Your task to perform on an android device: turn on sleep mode Image 0: 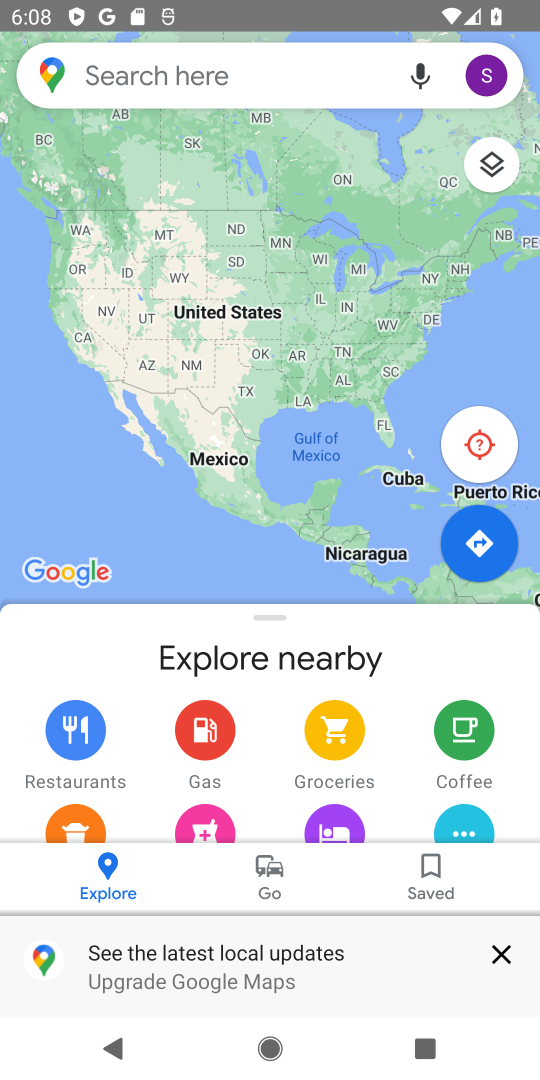
Step 0: press home button
Your task to perform on an android device: turn on sleep mode Image 1: 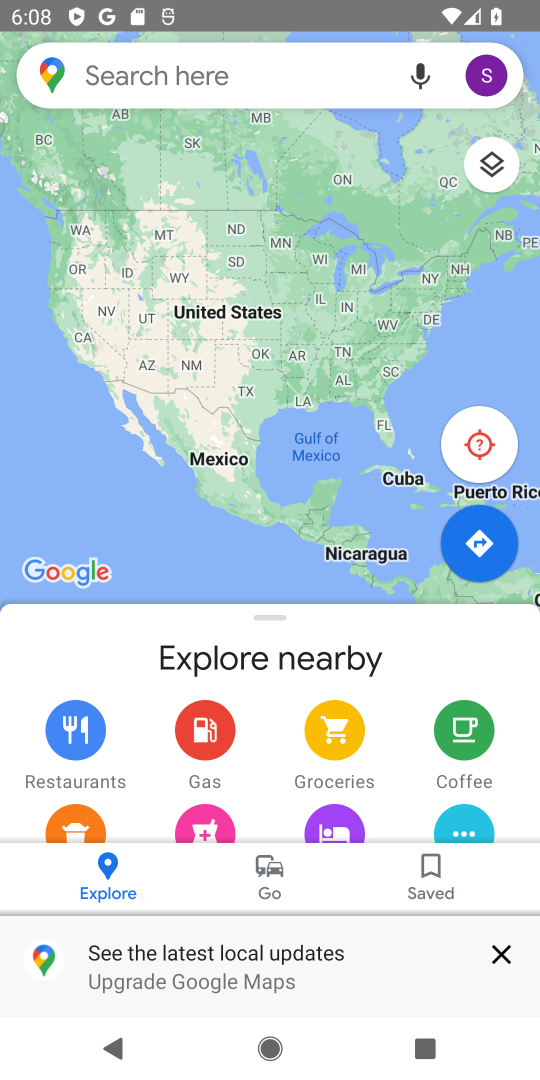
Step 1: press home button
Your task to perform on an android device: turn on sleep mode Image 2: 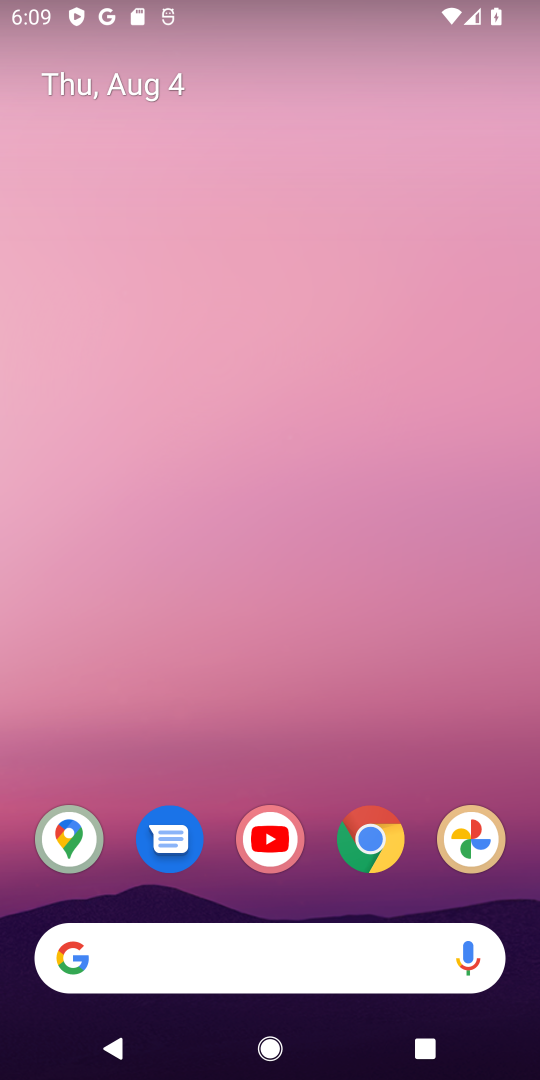
Step 2: drag from (320, 459) to (344, 1)
Your task to perform on an android device: turn on sleep mode Image 3: 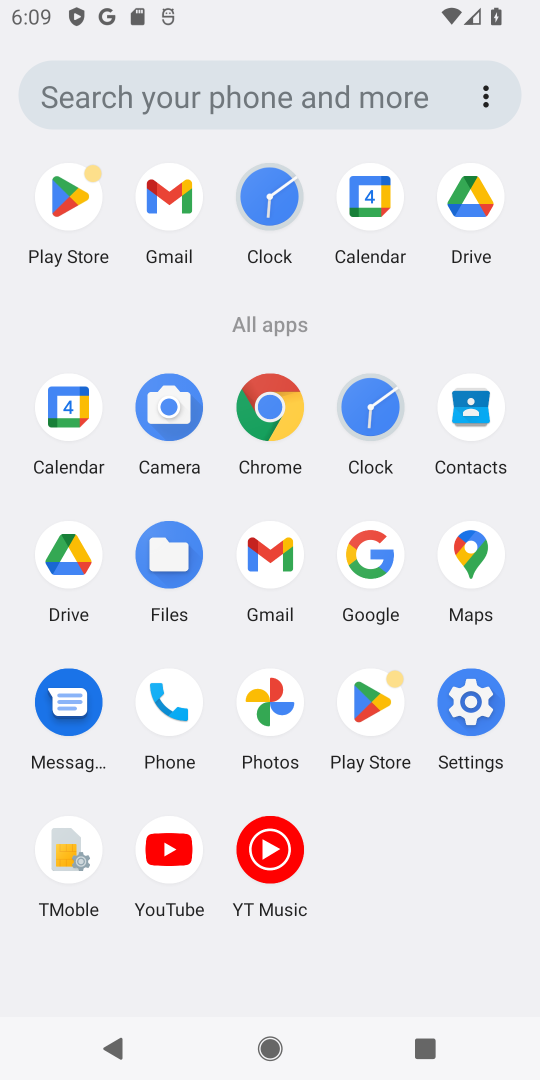
Step 3: click (476, 701)
Your task to perform on an android device: turn on sleep mode Image 4: 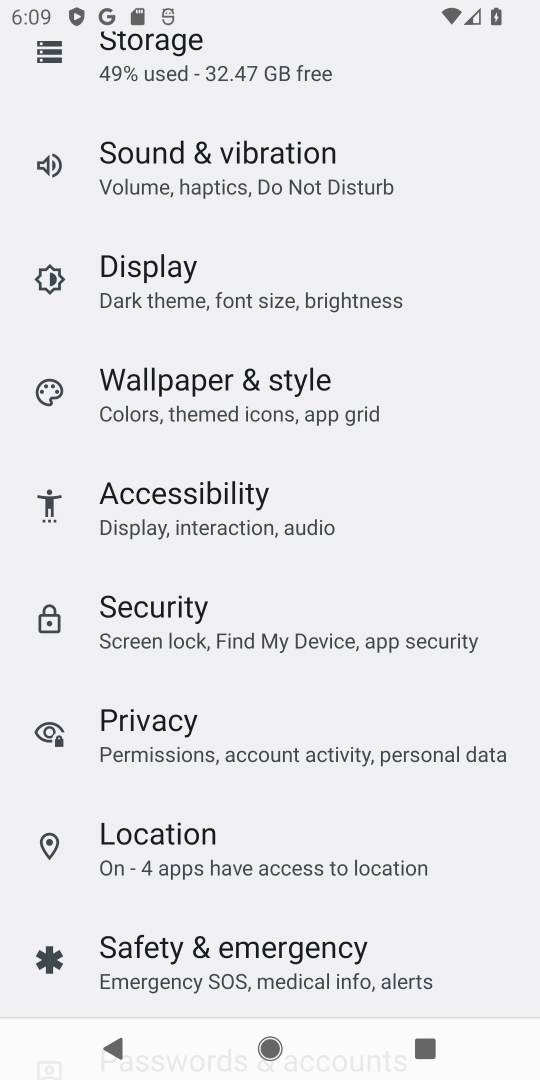
Step 4: click (252, 270)
Your task to perform on an android device: turn on sleep mode Image 5: 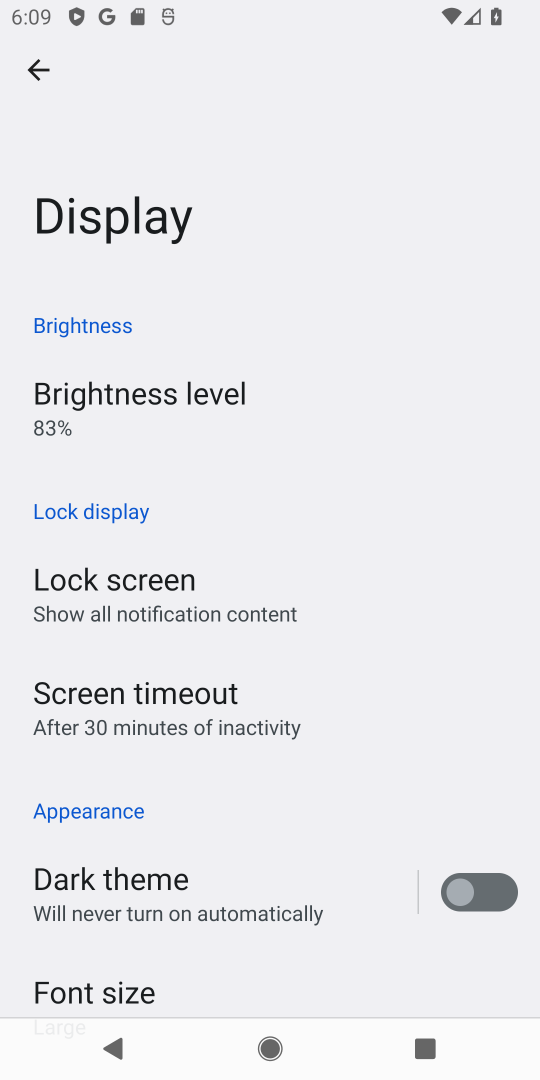
Step 5: drag from (373, 776) to (450, 102)
Your task to perform on an android device: turn on sleep mode Image 6: 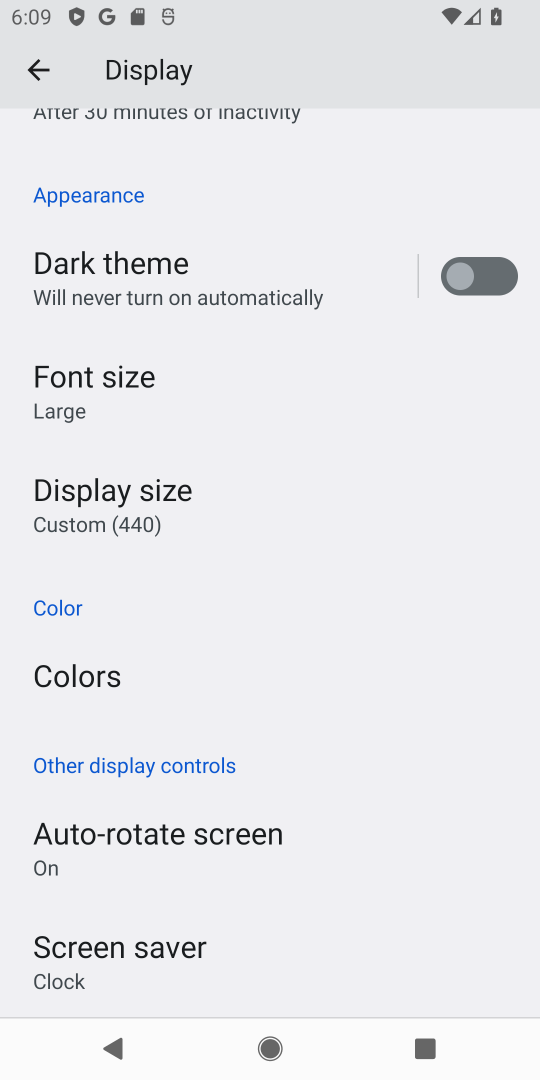
Step 6: drag from (334, 182) to (256, 859)
Your task to perform on an android device: turn on sleep mode Image 7: 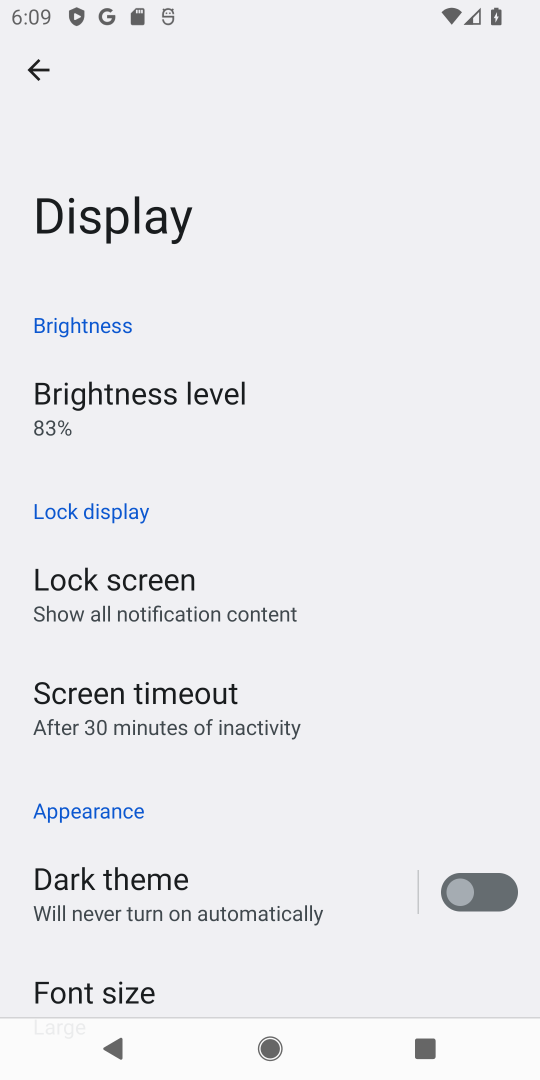
Step 7: click (116, 746)
Your task to perform on an android device: turn on sleep mode Image 8: 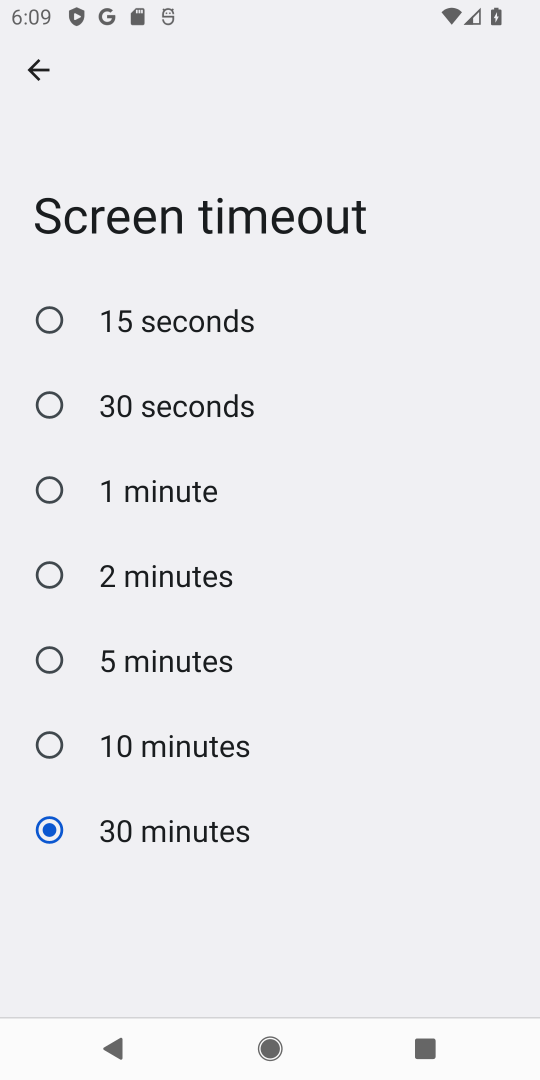
Step 8: task complete